Your task to perform on an android device: Open Chrome and go to the settings page Image 0: 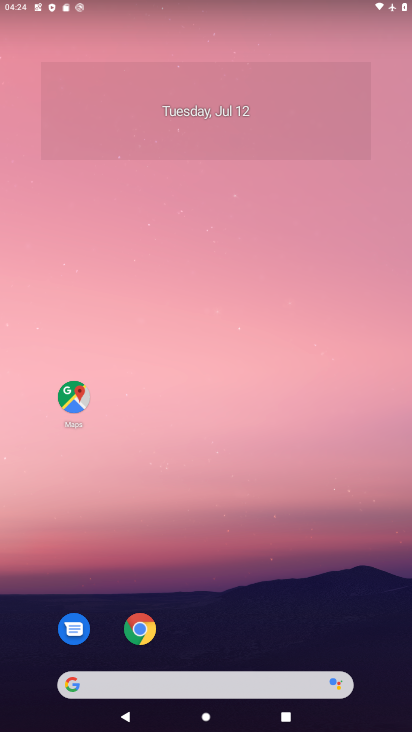
Step 0: drag from (333, 606) to (271, 117)
Your task to perform on an android device: Open Chrome and go to the settings page Image 1: 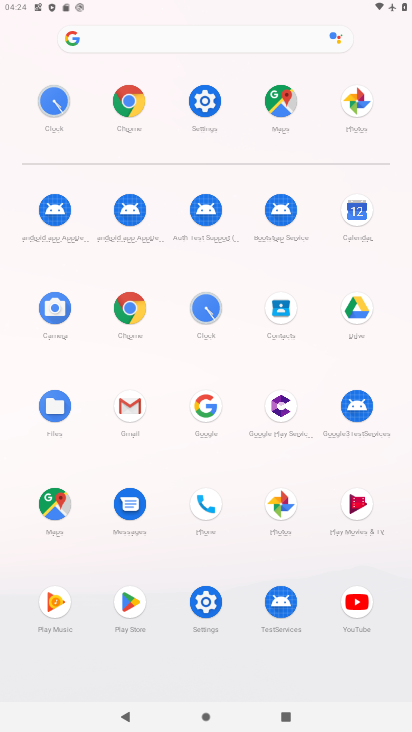
Step 1: click (127, 306)
Your task to perform on an android device: Open Chrome and go to the settings page Image 2: 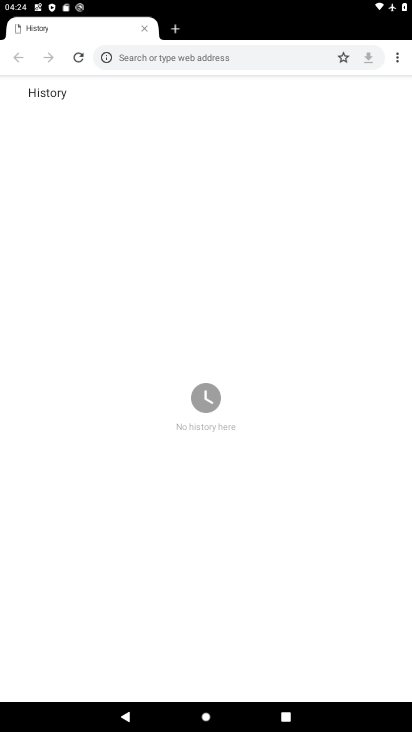
Step 2: task complete